Your task to perform on an android device: Go to settings Image 0: 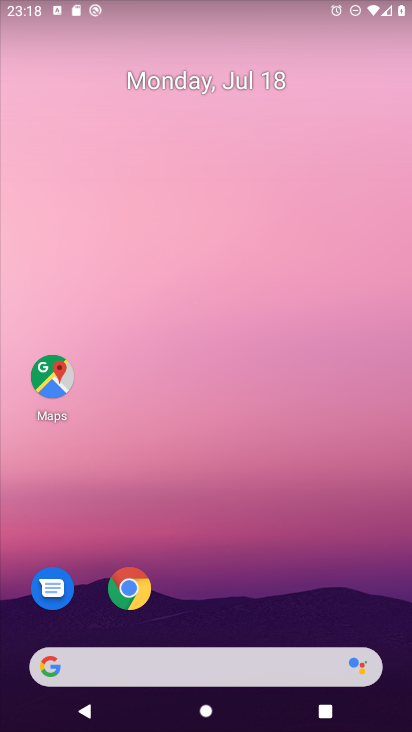
Step 0: drag from (382, 561) to (344, 87)
Your task to perform on an android device: Go to settings Image 1: 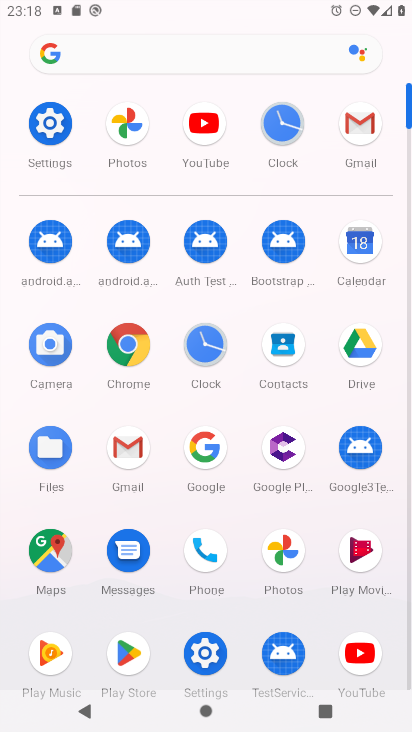
Step 1: click (204, 654)
Your task to perform on an android device: Go to settings Image 2: 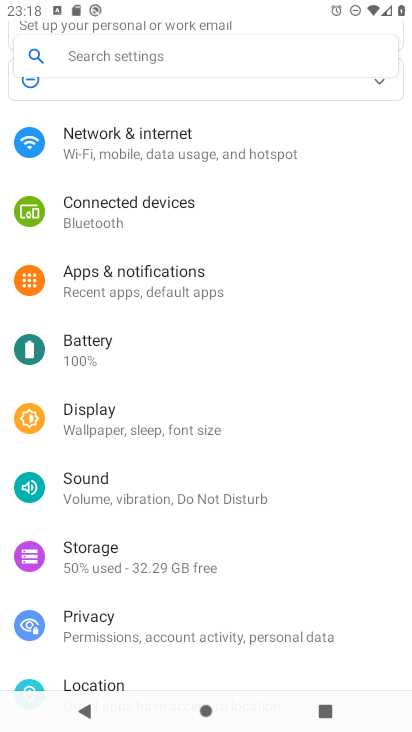
Step 2: task complete